Your task to perform on an android device: What is the news today? Image 0: 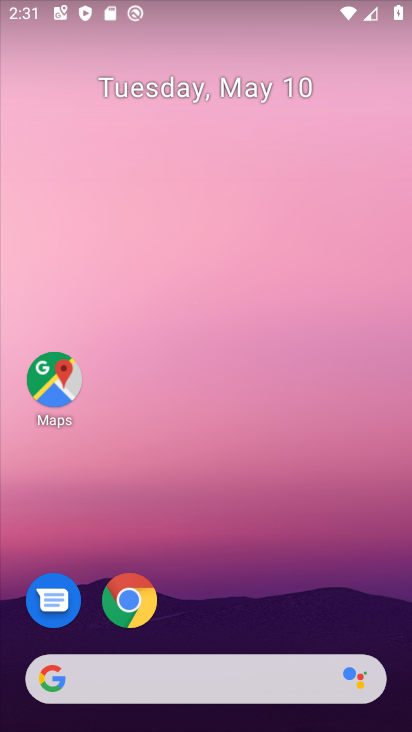
Step 0: drag from (223, 594) to (298, 142)
Your task to perform on an android device: What is the news today? Image 1: 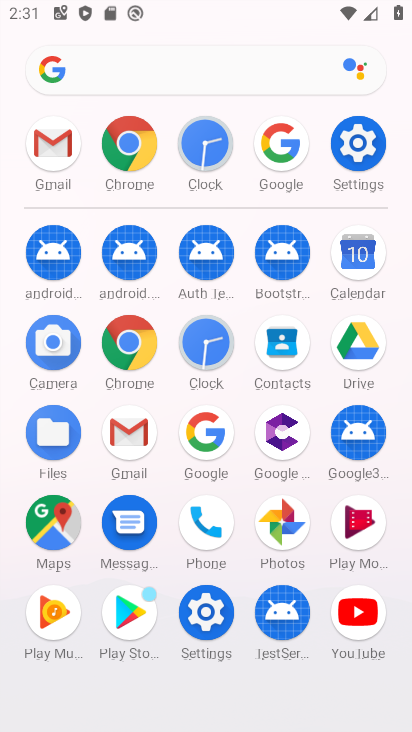
Step 1: click (212, 449)
Your task to perform on an android device: What is the news today? Image 2: 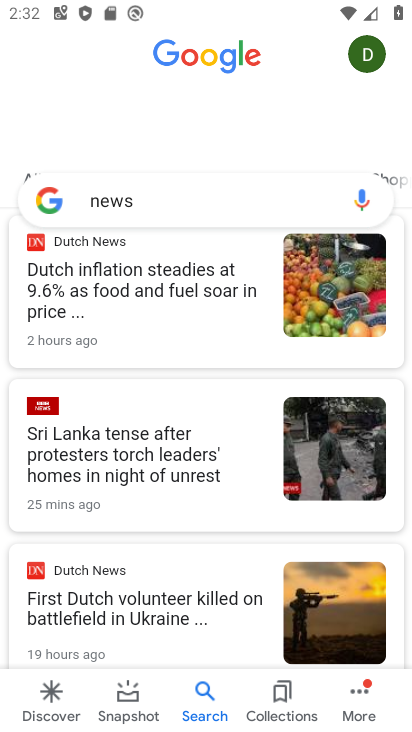
Step 2: task complete